Your task to perform on an android device: turn on translation in the chrome app Image 0: 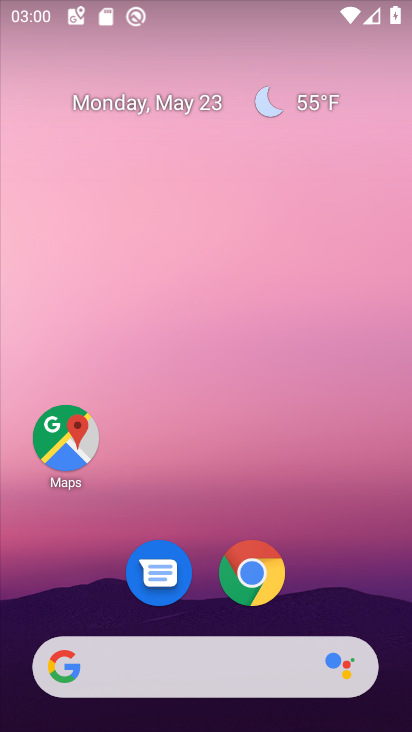
Step 0: click (259, 573)
Your task to perform on an android device: turn on translation in the chrome app Image 1: 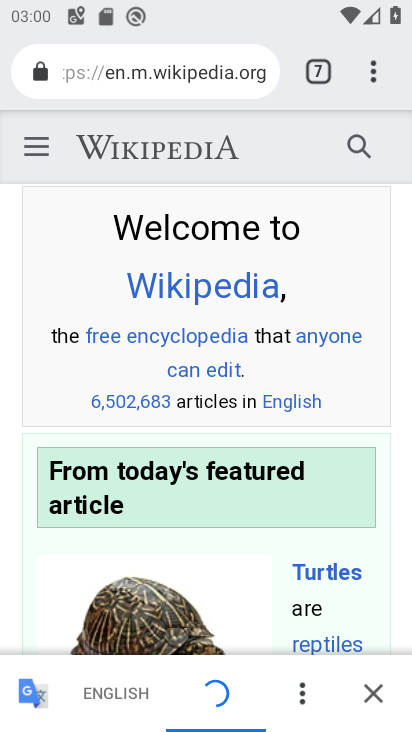
Step 1: click (383, 72)
Your task to perform on an android device: turn on translation in the chrome app Image 2: 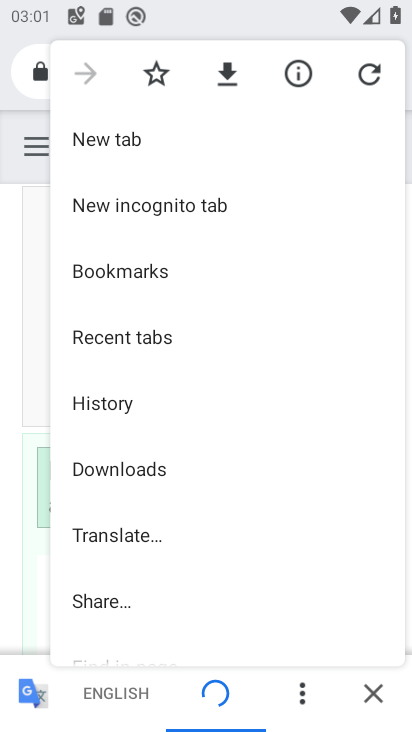
Step 2: drag from (232, 615) to (281, 33)
Your task to perform on an android device: turn on translation in the chrome app Image 3: 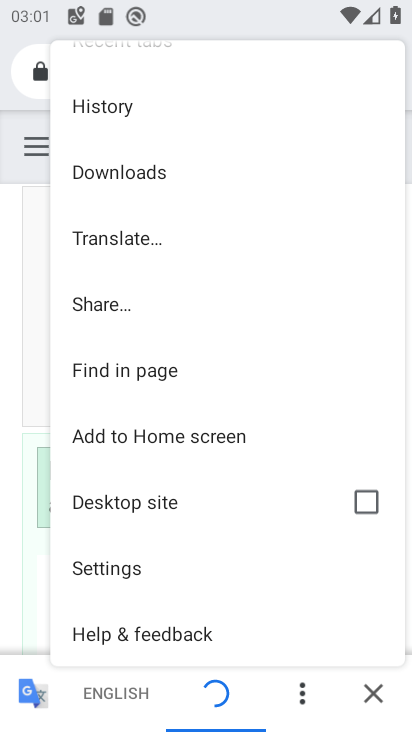
Step 3: click (127, 576)
Your task to perform on an android device: turn on translation in the chrome app Image 4: 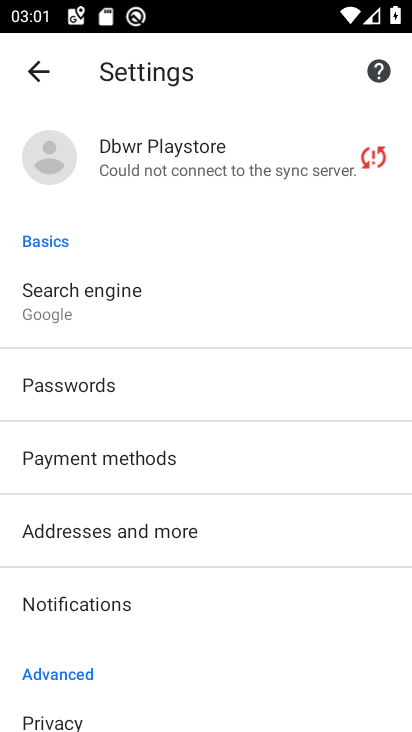
Step 4: drag from (234, 621) to (226, 293)
Your task to perform on an android device: turn on translation in the chrome app Image 5: 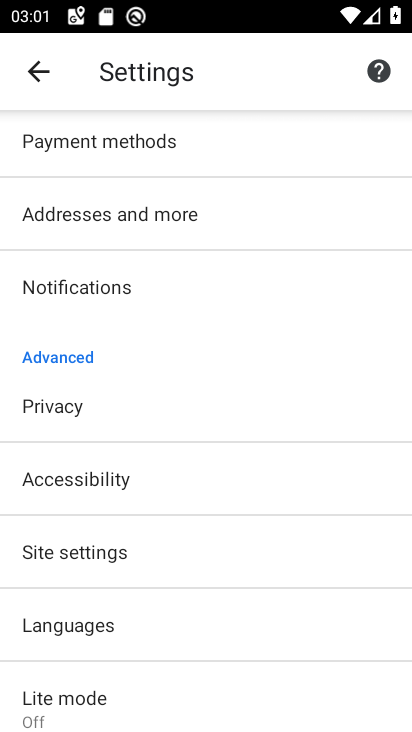
Step 5: click (93, 617)
Your task to perform on an android device: turn on translation in the chrome app Image 6: 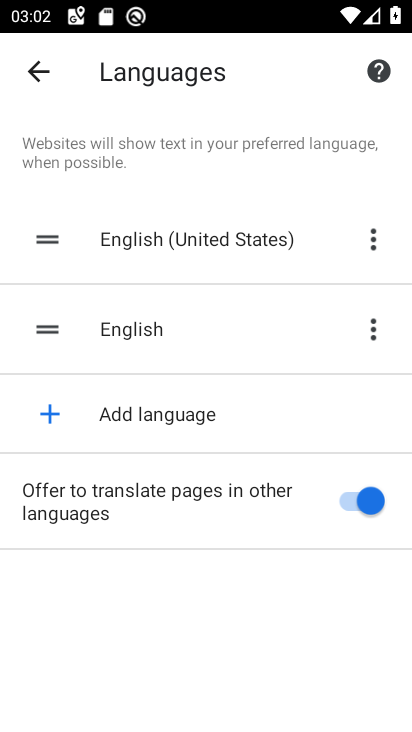
Step 6: task complete